Your task to perform on an android device: add a contact in the contacts app Image 0: 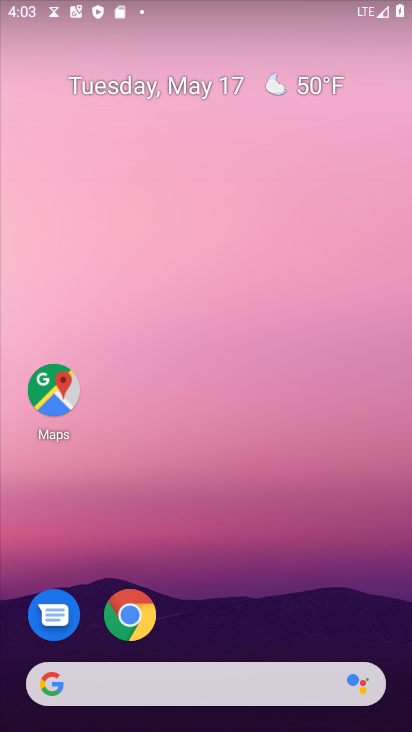
Step 0: drag from (227, 547) to (234, 204)
Your task to perform on an android device: add a contact in the contacts app Image 1: 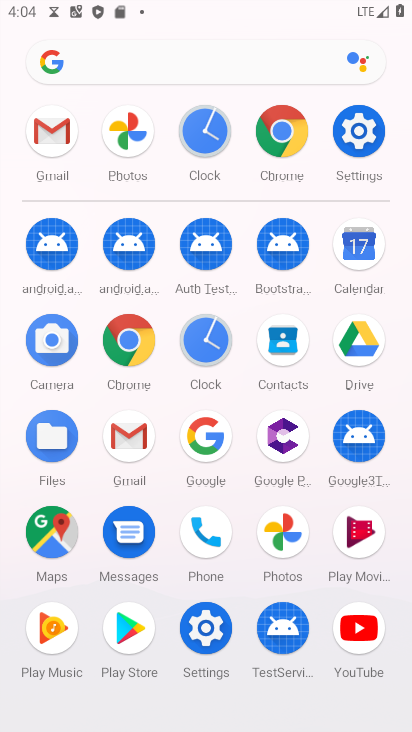
Step 1: click (281, 340)
Your task to perform on an android device: add a contact in the contacts app Image 2: 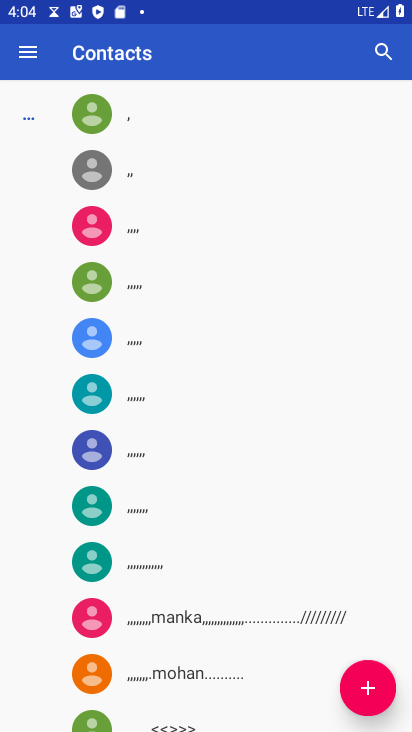
Step 2: click (368, 679)
Your task to perform on an android device: add a contact in the contacts app Image 3: 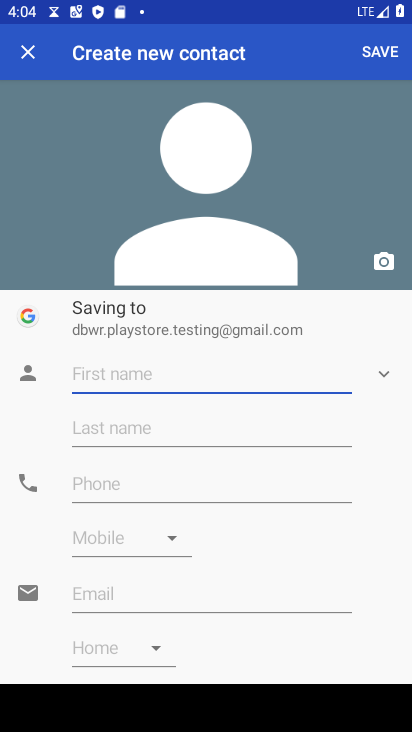
Step 3: drag from (314, 667) to (278, 724)
Your task to perform on an android device: add a contact in the contacts app Image 4: 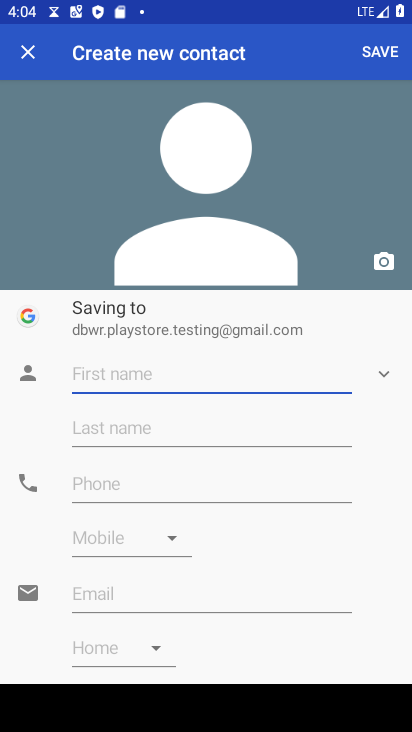
Step 4: type "dfdfsfsdf"
Your task to perform on an android device: add a contact in the contacts app Image 5: 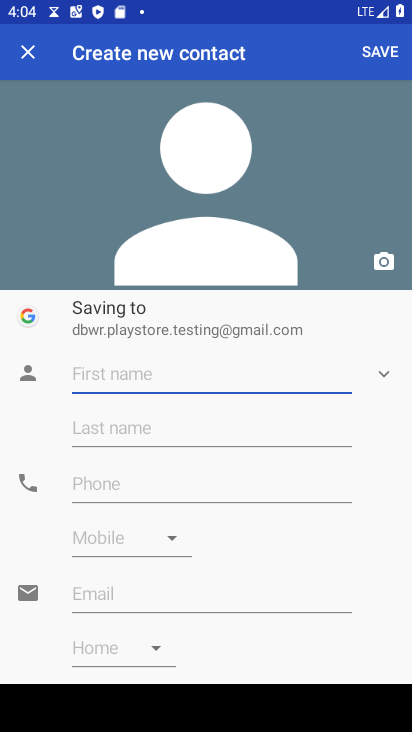
Step 5: click (403, 321)
Your task to perform on an android device: add a contact in the contacts app Image 6: 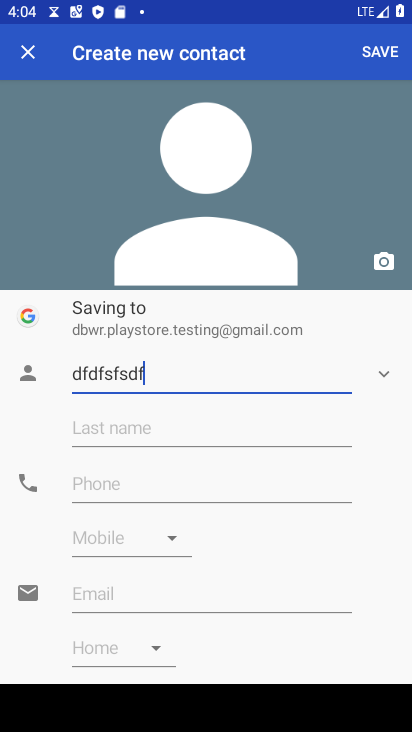
Step 6: click (90, 489)
Your task to perform on an android device: add a contact in the contacts app Image 7: 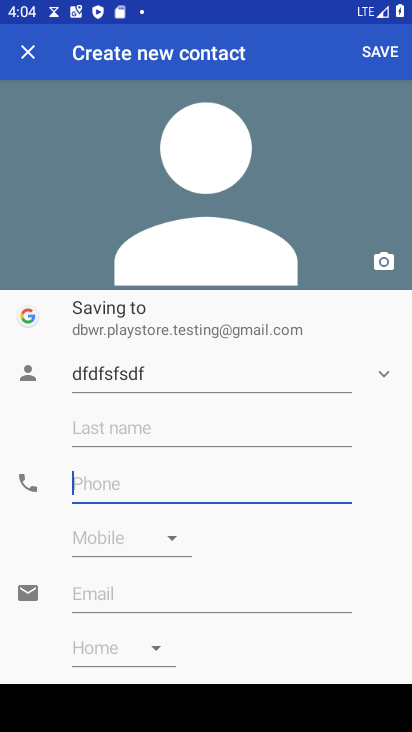
Step 7: type "5656565667777"
Your task to perform on an android device: add a contact in the contacts app Image 8: 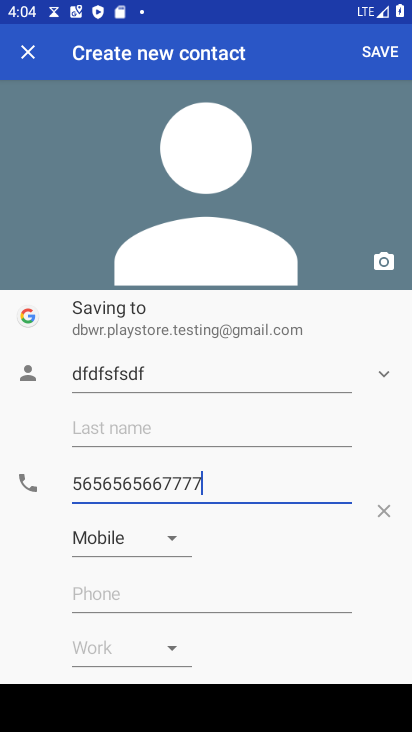
Step 8: click (365, 43)
Your task to perform on an android device: add a contact in the contacts app Image 9: 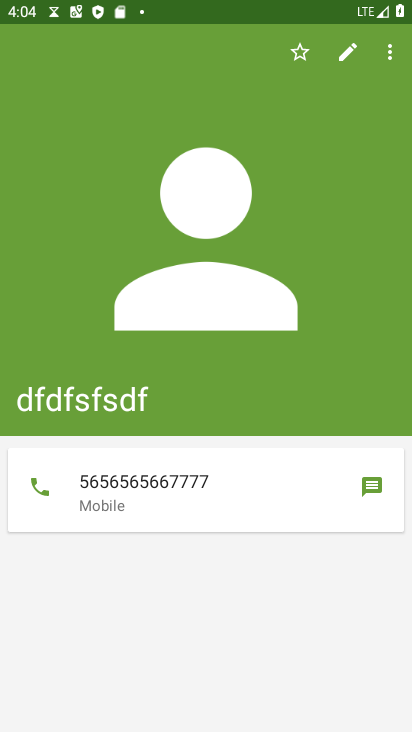
Step 9: task complete